Your task to perform on an android device: Open Chrome and go to the settings page Image 0: 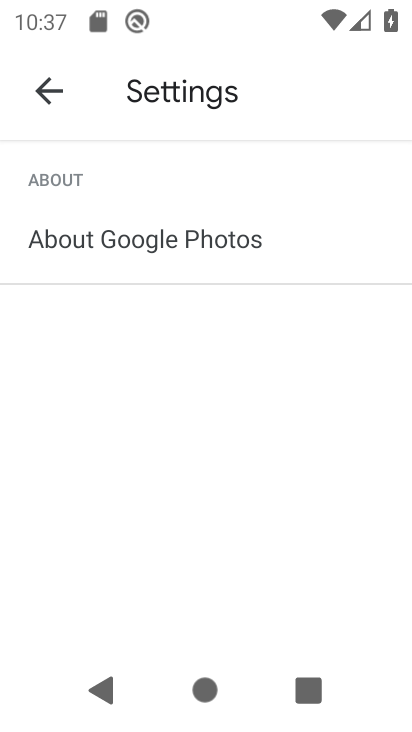
Step 0: press home button
Your task to perform on an android device: Open Chrome and go to the settings page Image 1: 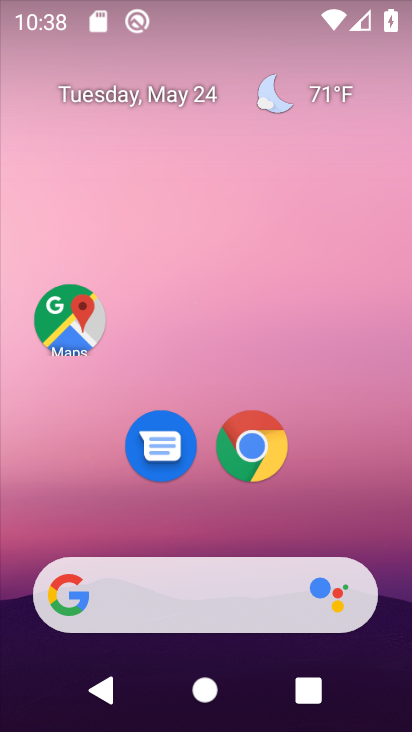
Step 1: drag from (215, 525) to (248, 177)
Your task to perform on an android device: Open Chrome and go to the settings page Image 2: 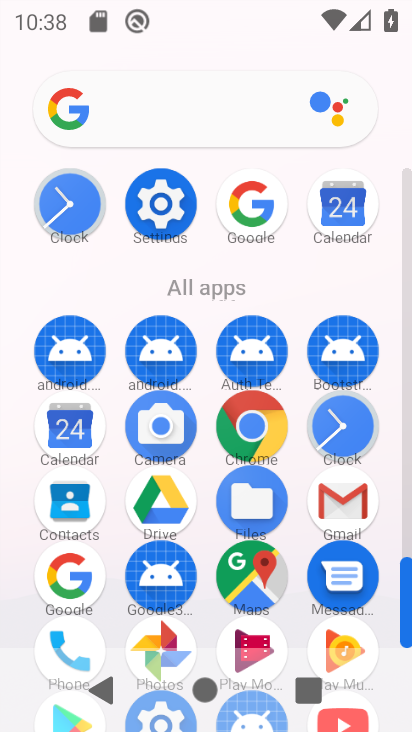
Step 2: click (250, 419)
Your task to perform on an android device: Open Chrome and go to the settings page Image 3: 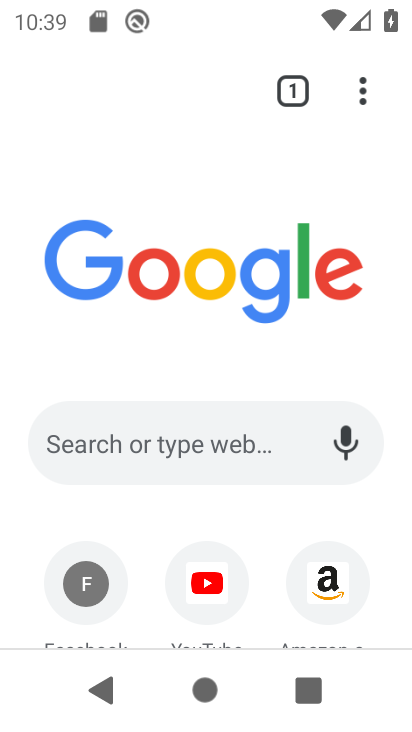
Step 3: click (368, 96)
Your task to perform on an android device: Open Chrome and go to the settings page Image 4: 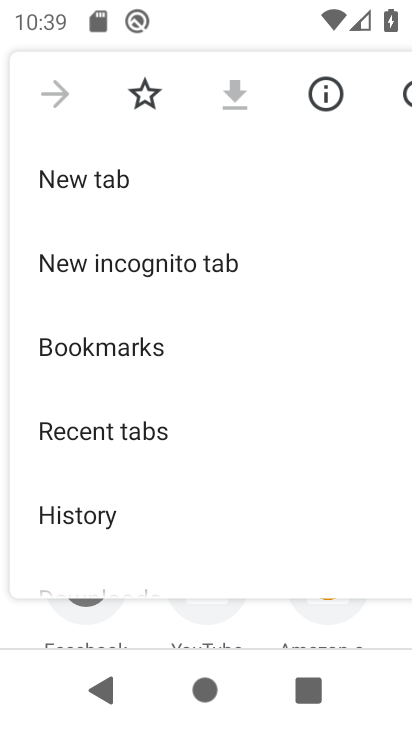
Step 4: drag from (162, 480) to (195, 158)
Your task to perform on an android device: Open Chrome and go to the settings page Image 5: 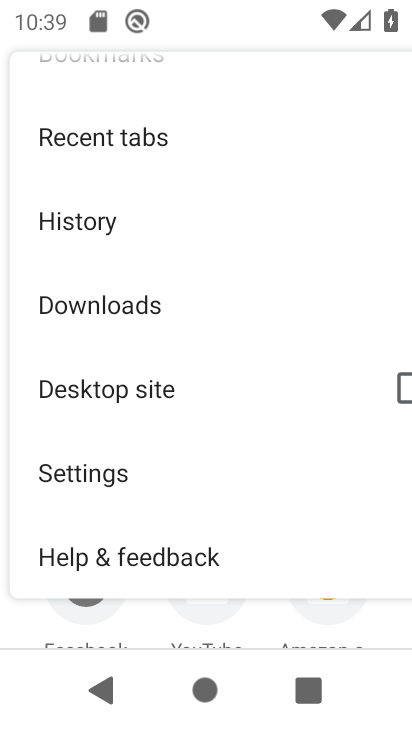
Step 5: click (145, 481)
Your task to perform on an android device: Open Chrome and go to the settings page Image 6: 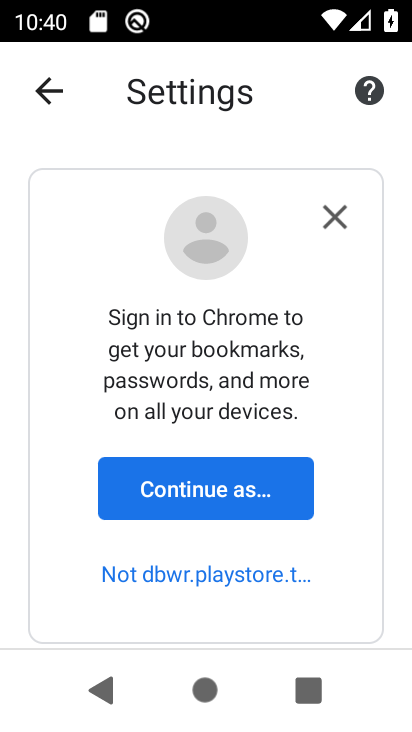
Step 6: task complete